Your task to perform on an android device: Open Chrome and go to settings Image 0: 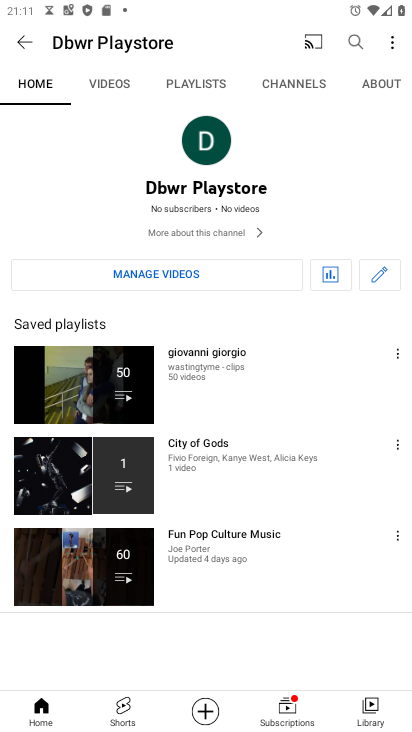
Step 0: press home button
Your task to perform on an android device: Open Chrome and go to settings Image 1: 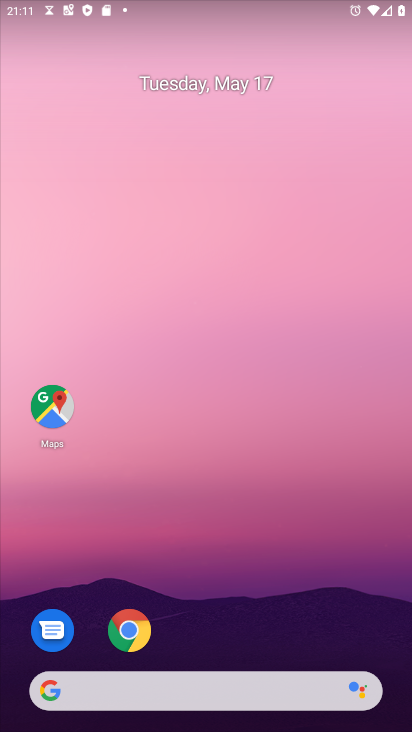
Step 1: click (135, 616)
Your task to perform on an android device: Open Chrome and go to settings Image 2: 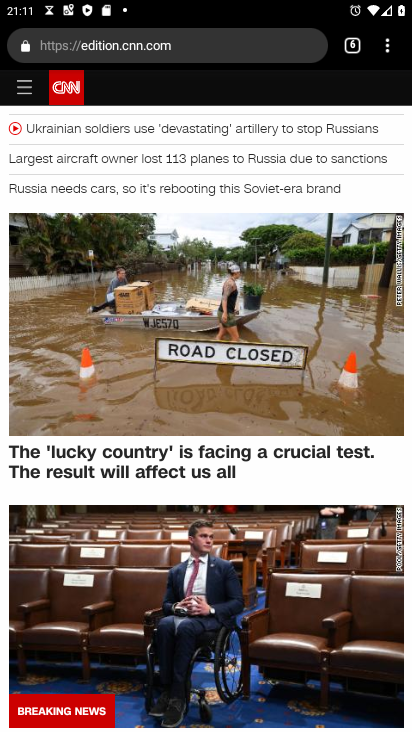
Step 2: task complete